Your task to perform on an android device: Go to accessibility settings Image 0: 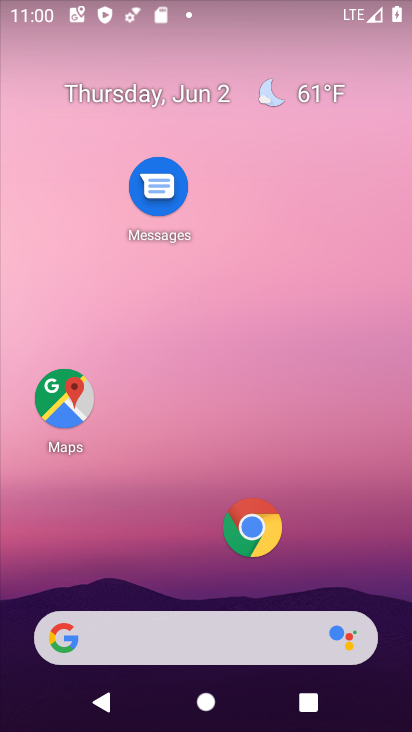
Step 0: drag from (203, 577) to (272, 114)
Your task to perform on an android device: Go to accessibility settings Image 1: 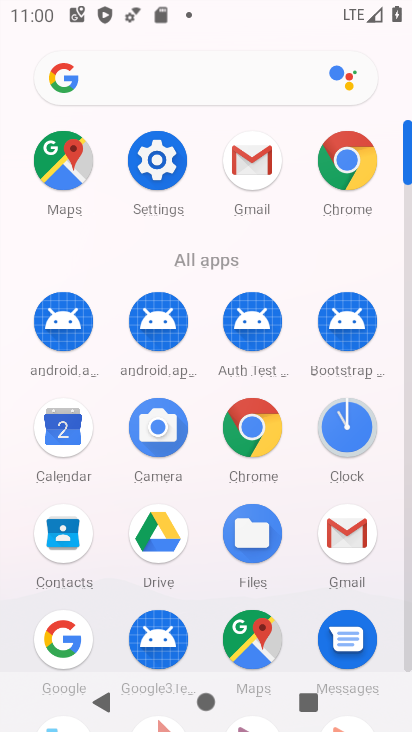
Step 1: click (152, 149)
Your task to perform on an android device: Go to accessibility settings Image 2: 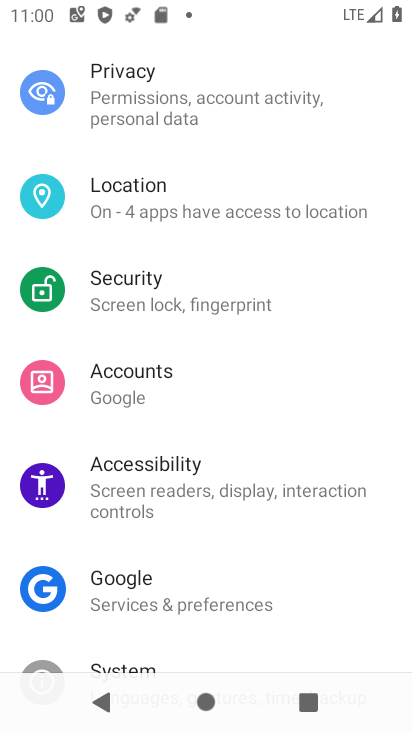
Step 2: click (210, 466)
Your task to perform on an android device: Go to accessibility settings Image 3: 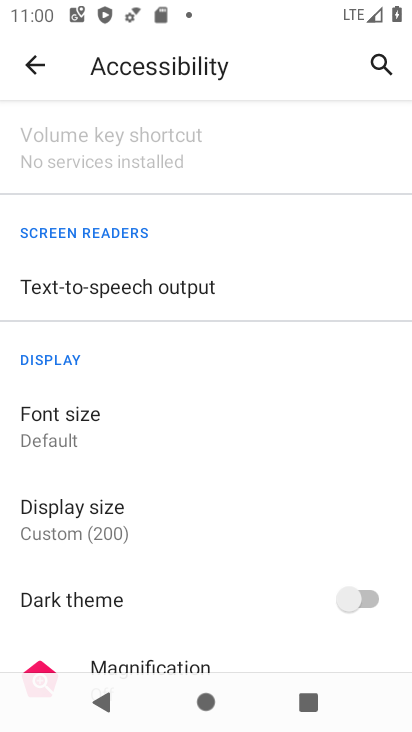
Step 3: task complete